Your task to perform on an android device: turn smart compose on in the gmail app Image 0: 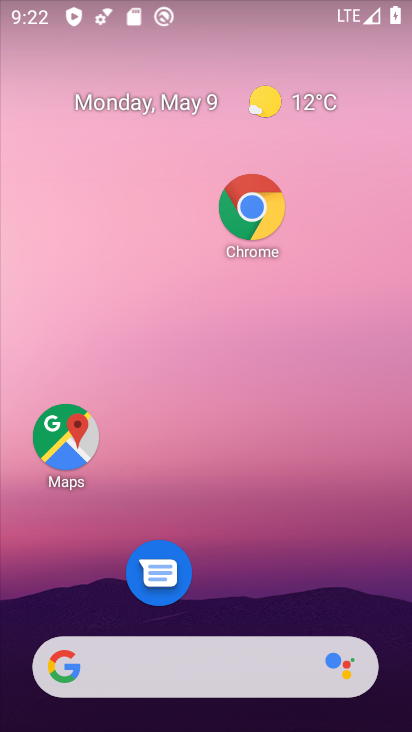
Step 0: drag from (309, 615) to (285, 181)
Your task to perform on an android device: turn smart compose on in the gmail app Image 1: 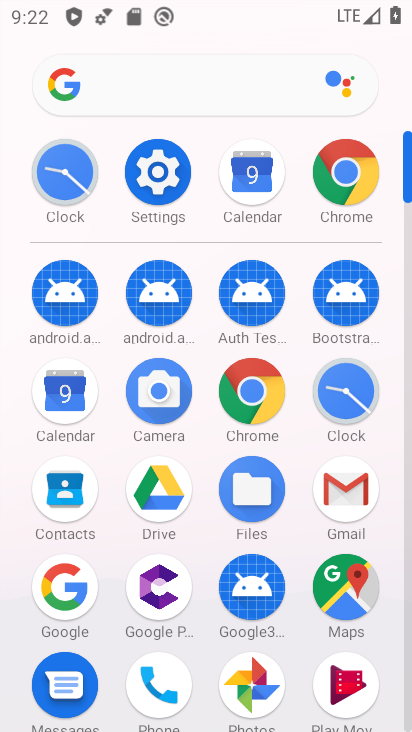
Step 1: click (356, 506)
Your task to perform on an android device: turn smart compose on in the gmail app Image 2: 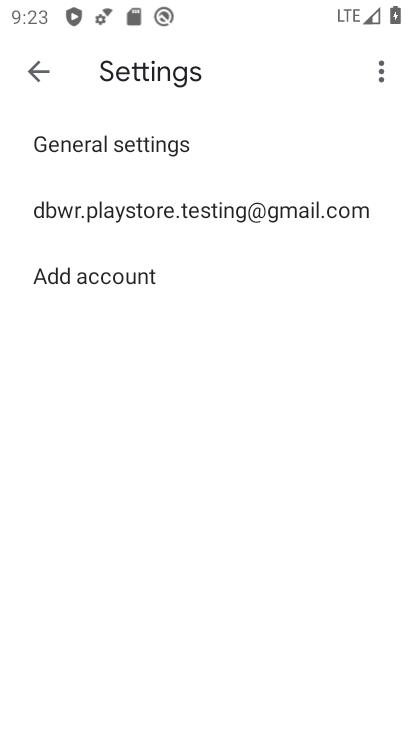
Step 2: click (190, 211)
Your task to perform on an android device: turn smart compose on in the gmail app Image 3: 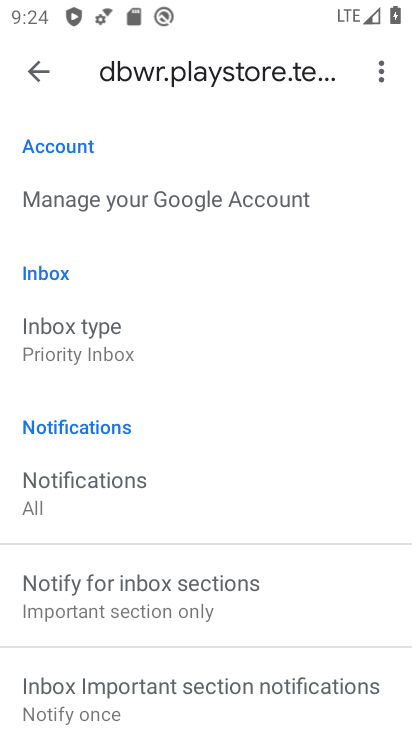
Step 3: task complete